Your task to perform on an android device: read, delete, or share a saved page in the chrome app Image 0: 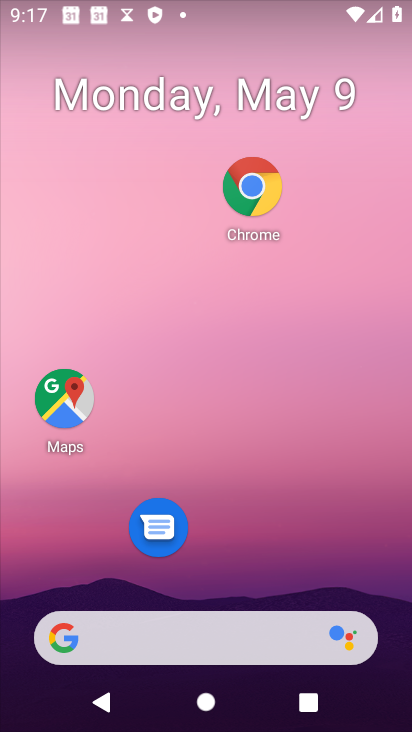
Step 0: press home button
Your task to perform on an android device: read, delete, or share a saved page in the chrome app Image 1: 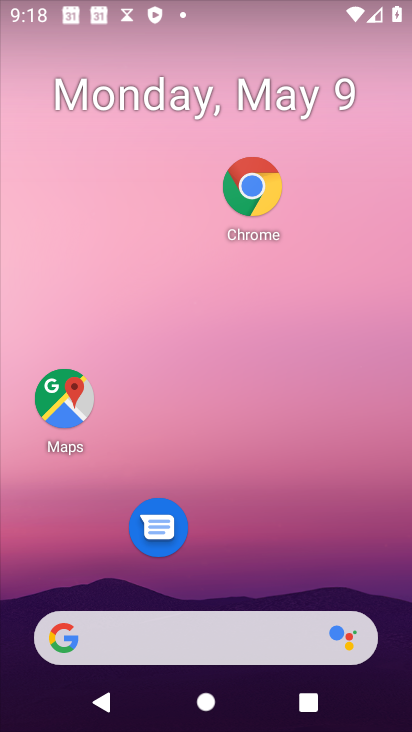
Step 1: click (250, 180)
Your task to perform on an android device: read, delete, or share a saved page in the chrome app Image 2: 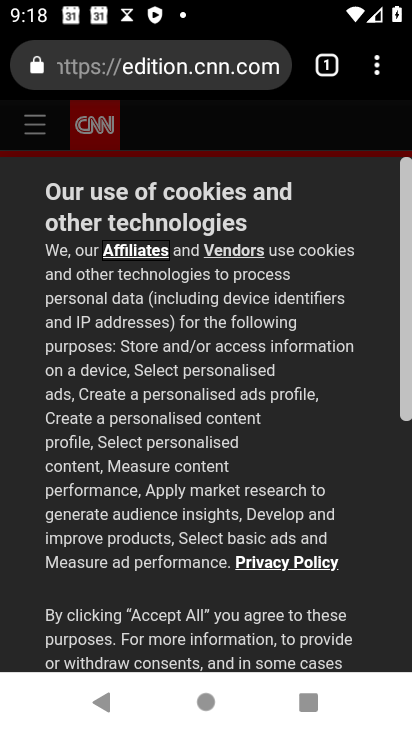
Step 2: drag from (227, 602) to (243, 262)
Your task to perform on an android device: read, delete, or share a saved page in the chrome app Image 3: 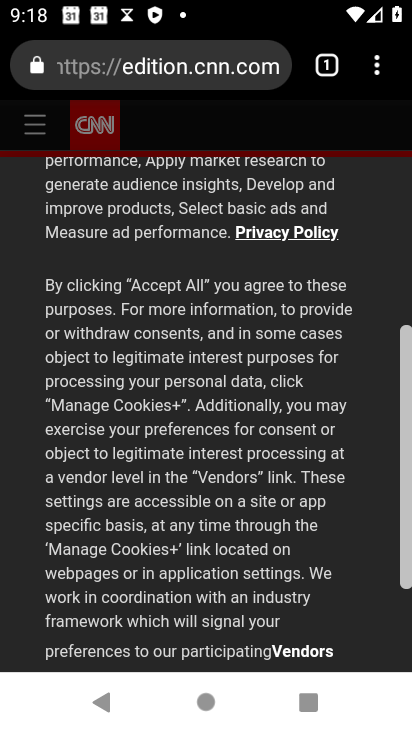
Step 3: drag from (204, 627) to (233, 226)
Your task to perform on an android device: read, delete, or share a saved page in the chrome app Image 4: 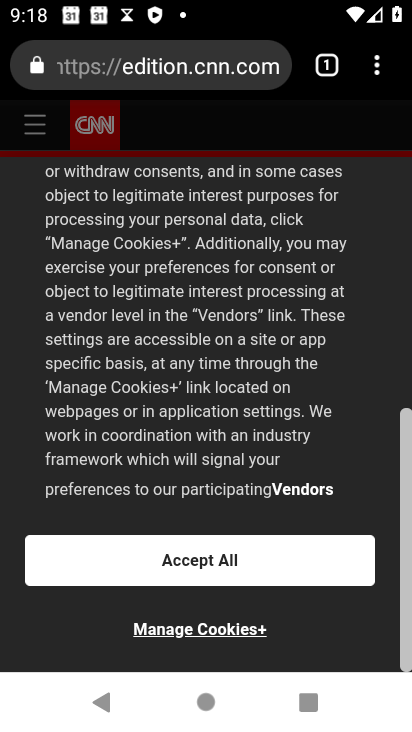
Step 4: click (201, 557)
Your task to perform on an android device: read, delete, or share a saved page in the chrome app Image 5: 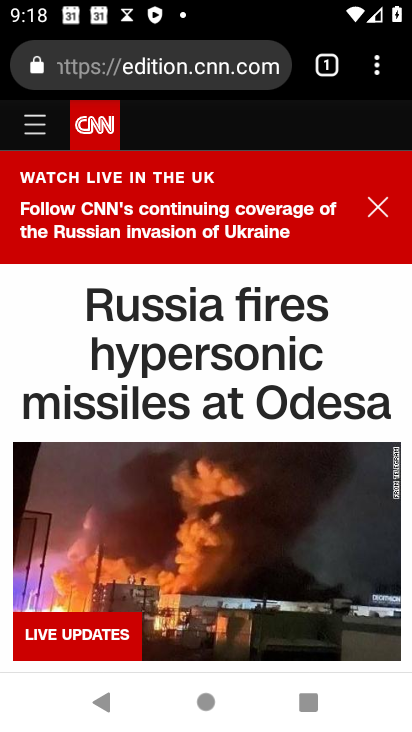
Step 5: click (373, 203)
Your task to perform on an android device: read, delete, or share a saved page in the chrome app Image 6: 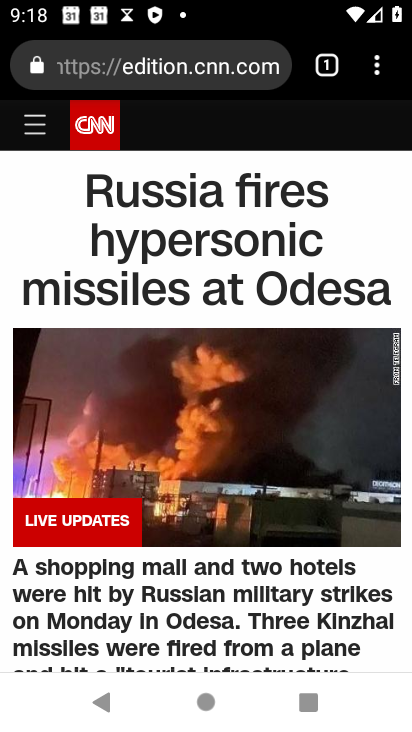
Step 6: click (380, 66)
Your task to perform on an android device: read, delete, or share a saved page in the chrome app Image 7: 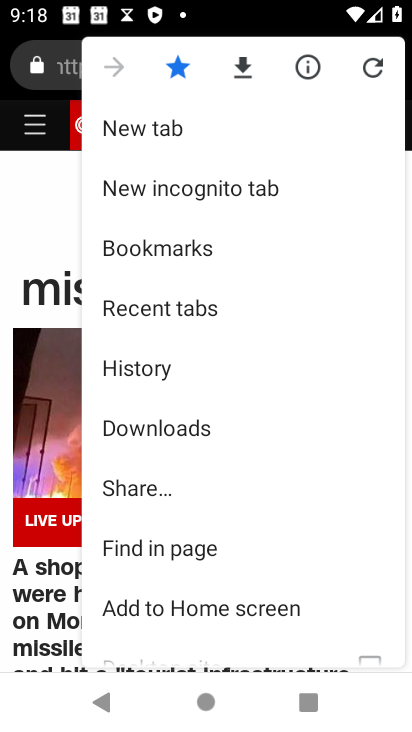
Step 7: click (232, 426)
Your task to perform on an android device: read, delete, or share a saved page in the chrome app Image 8: 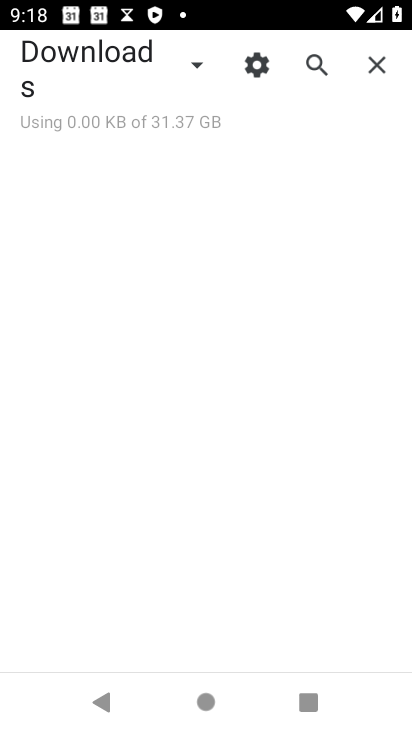
Step 8: task complete